Your task to perform on an android device: read, delete, or share a saved page in the chrome app Image 0: 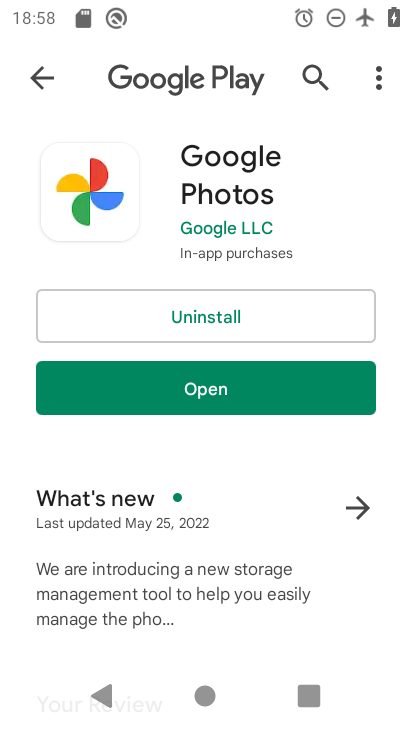
Step 0: press home button
Your task to perform on an android device: read, delete, or share a saved page in the chrome app Image 1: 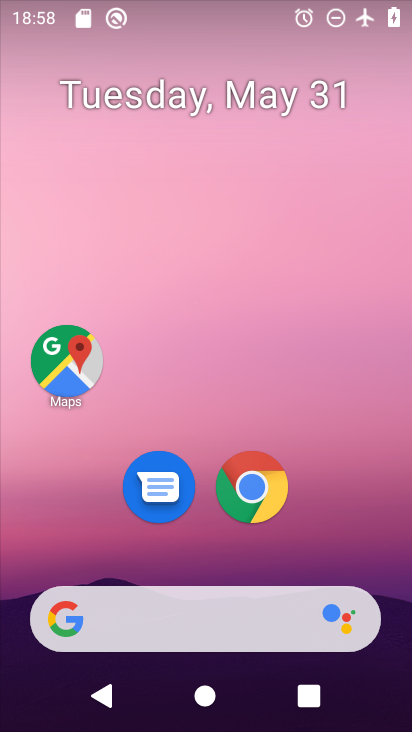
Step 1: click (254, 484)
Your task to perform on an android device: read, delete, or share a saved page in the chrome app Image 2: 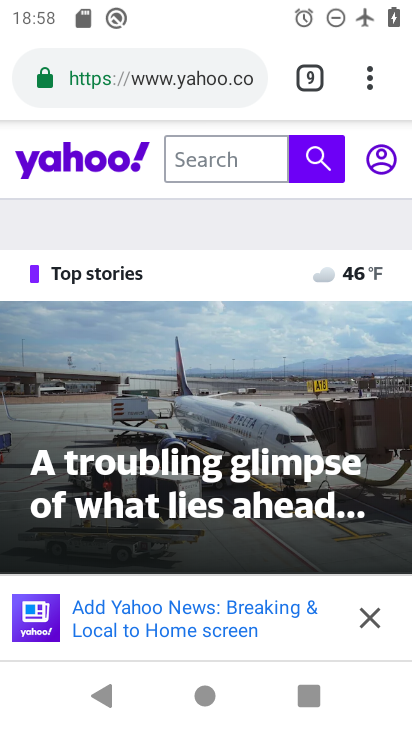
Step 2: click (369, 74)
Your task to perform on an android device: read, delete, or share a saved page in the chrome app Image 3: 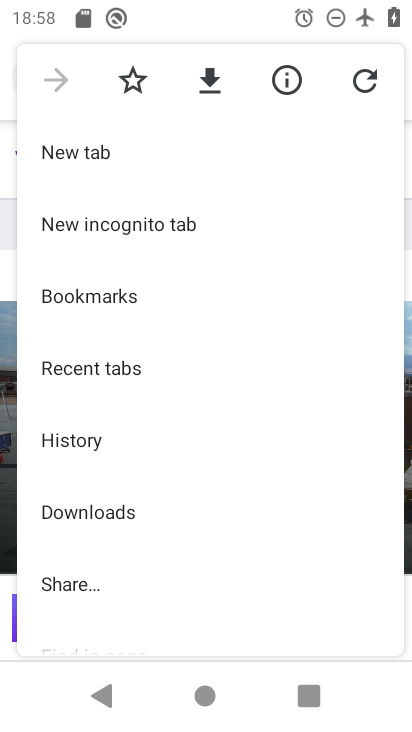
Step 3: click (89, 505)
Your task to perform on an android device: read, delete, or share a saved page in the chrome app Image 4: 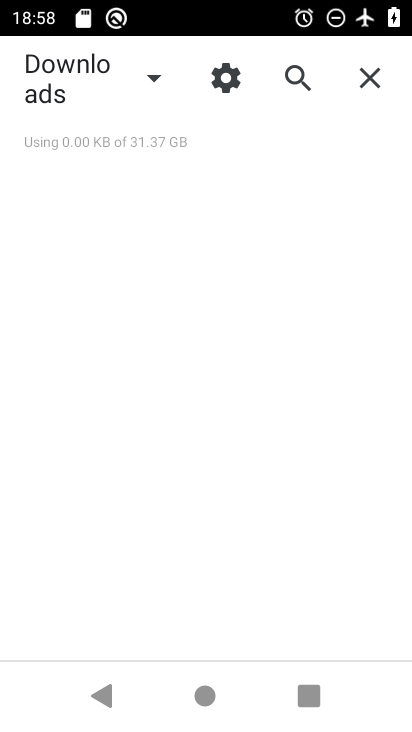
Step 4: task complete